Your task to perform on an android device: Go to Wikipedia Image 0: 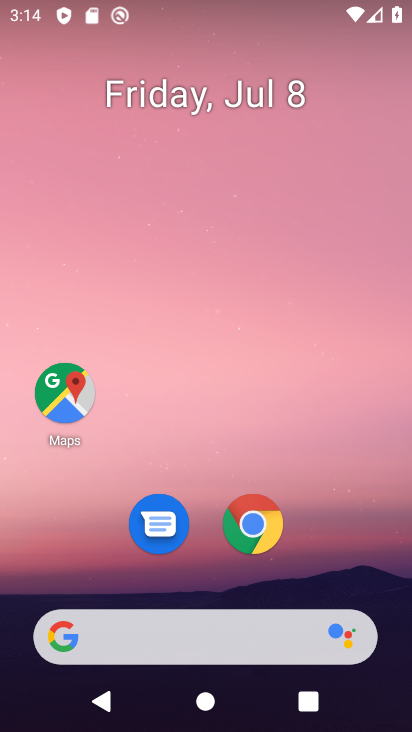
Step 0: click (266, 533)
Your task to perform on an android device: Go to Wikipedia Image 1: 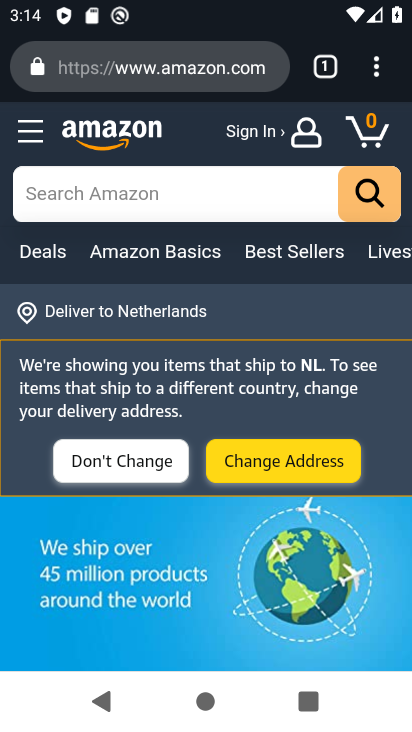
Step 1: click (380, 69)
Your task to perform on an android device: Go to Wikipedia Image 2: 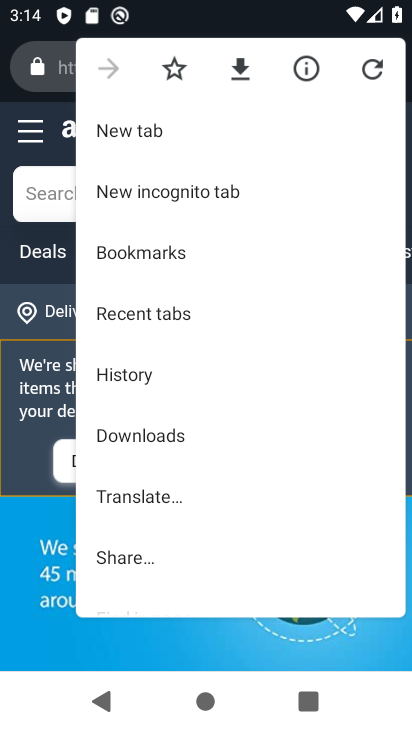
Step 2: click (284, 122)
Your task to perform on an android device: Go to Wikipedia Image 3: 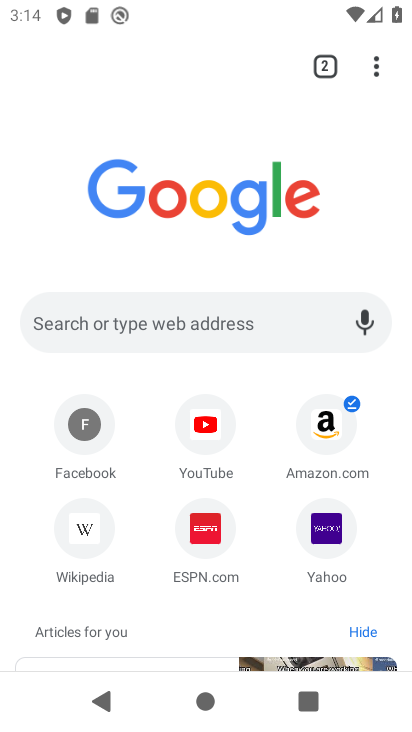
Step 3: click (84, 522)
Your task to perform on an android device: Go to Wikipedia Image 4: 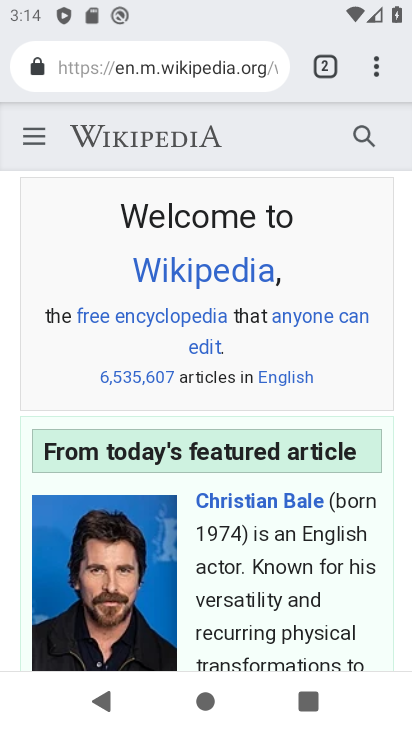
Step 4: task complete